Your task to perform on an android device: Look up the best rated bike seats on Target Image 0: 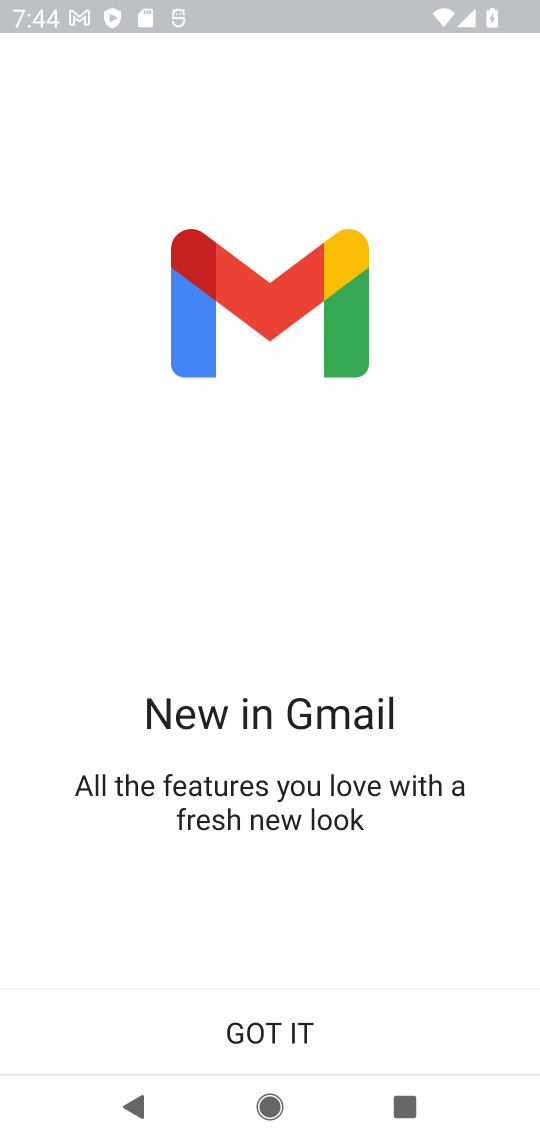
Step 0: press home button
Your task to perform on an android device: Look up the best rated bike seats on Target Image 1: 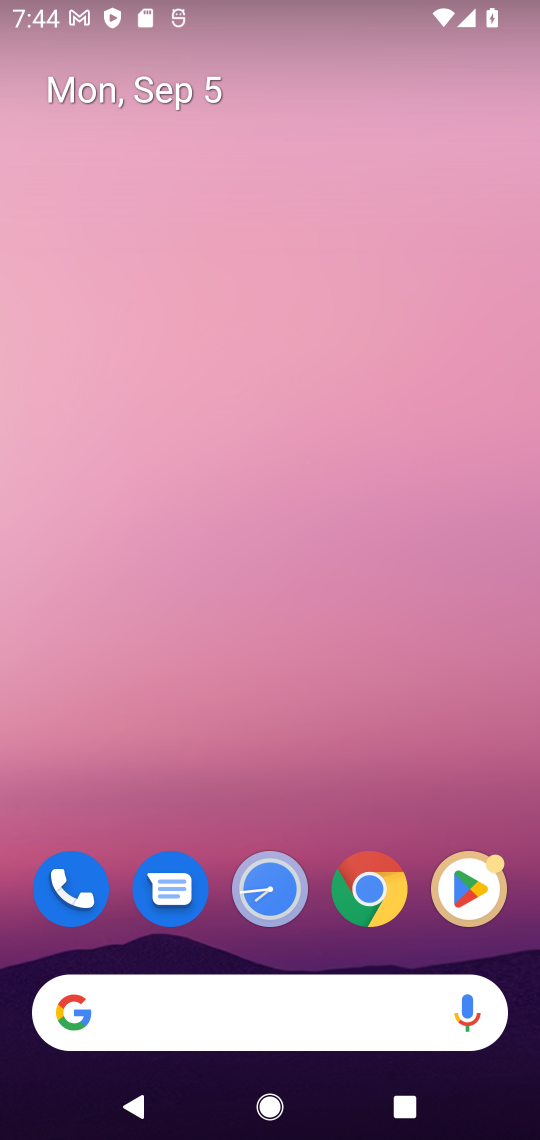
Step 1: click (257, 1016)
Your task to perform on an android device: Look up the best rated bike seats on Target Image 2: 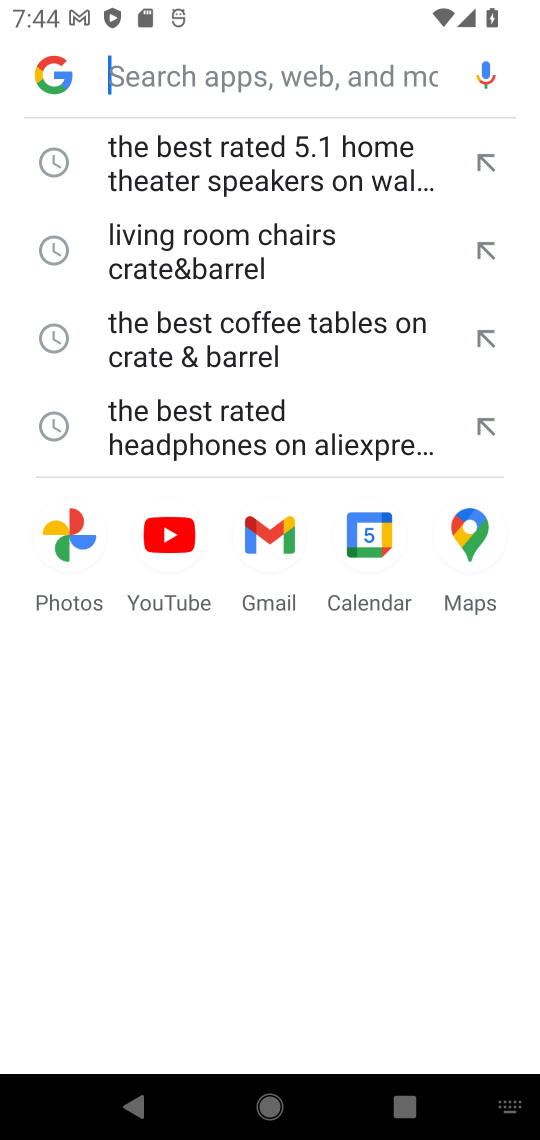
Step 2: click (257, 1016)
Your task to perform on an android device: Look up the best rated bike seats on Target Image 3: 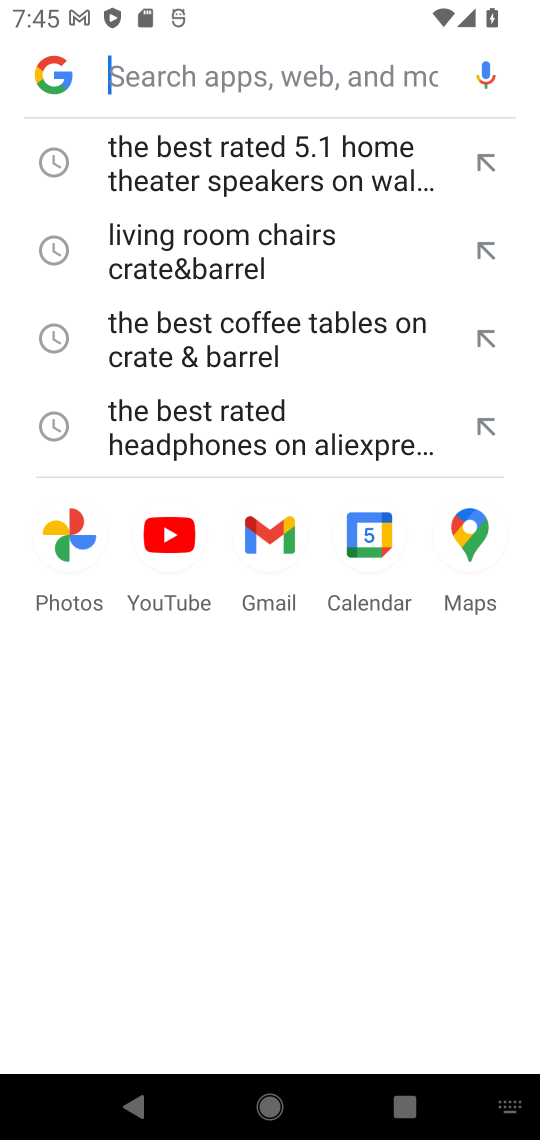
Step 3: type "the best rated bike seats on Target"
Your task to perform on an android device: Look up the best rated bike seats on Target Image 4: 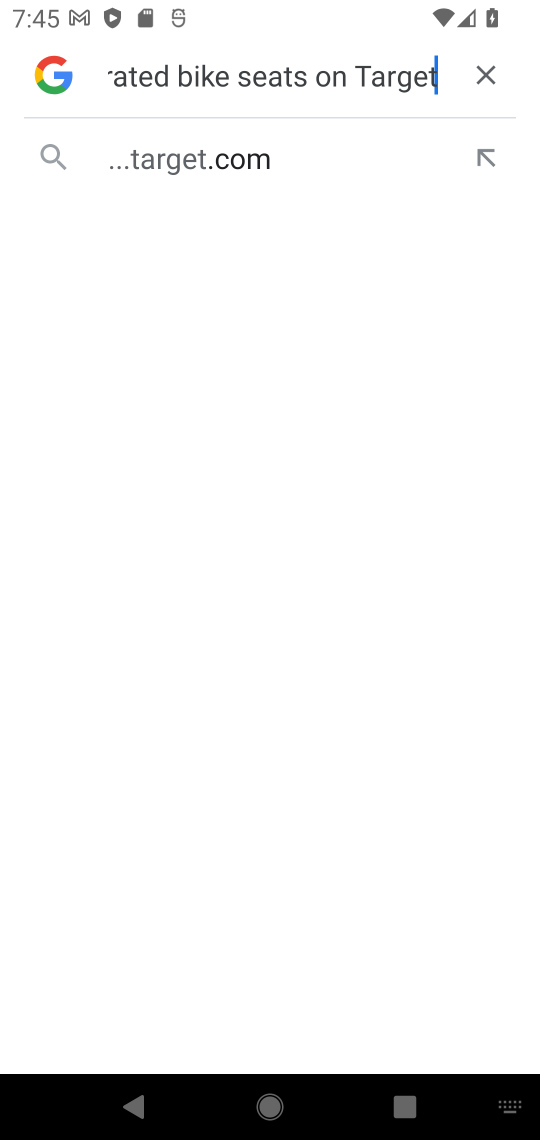
Step 4: click (240, 165)
Your task to perform on an android device: Look up the best rated bike seats on Target Image 5: 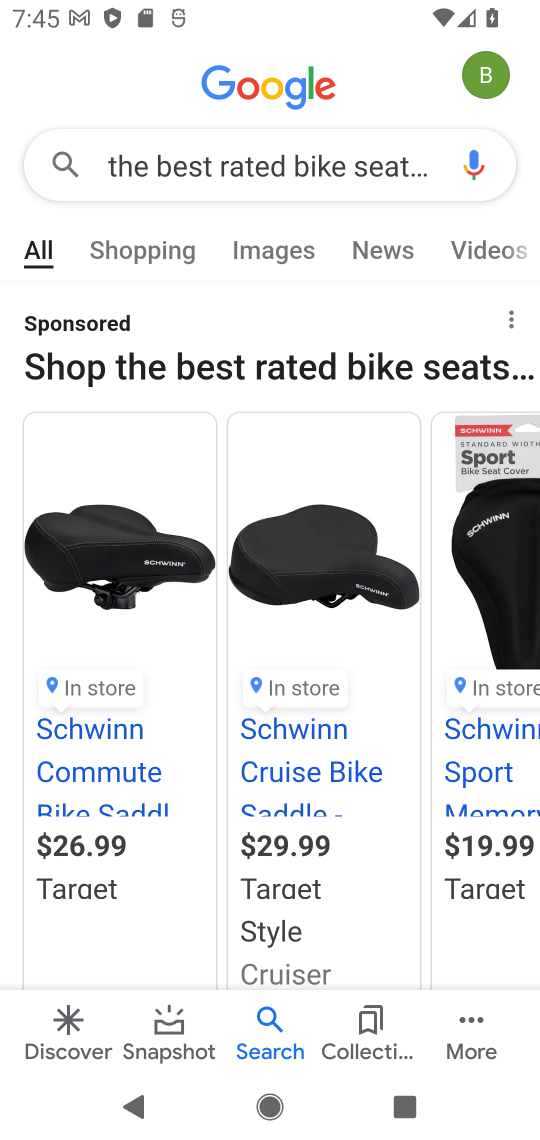
Step 5: task complete